Your task to perform on an android device: What's on my calendar today? Image 0: 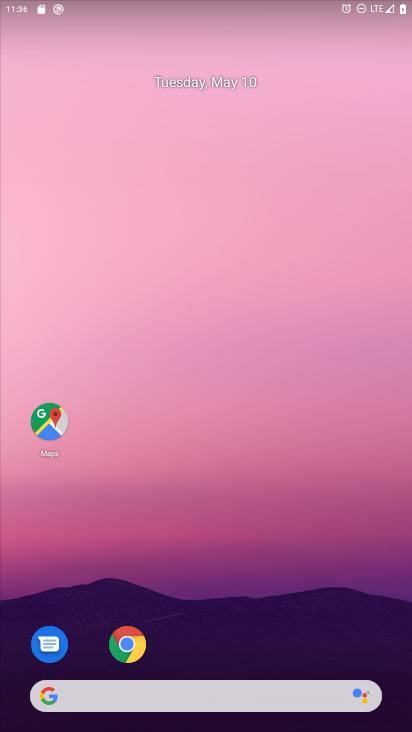
Step 0: drag from (187, 640) to (233, 306)
Your task to perform on an android device: What's on my calendar today? Image 1: 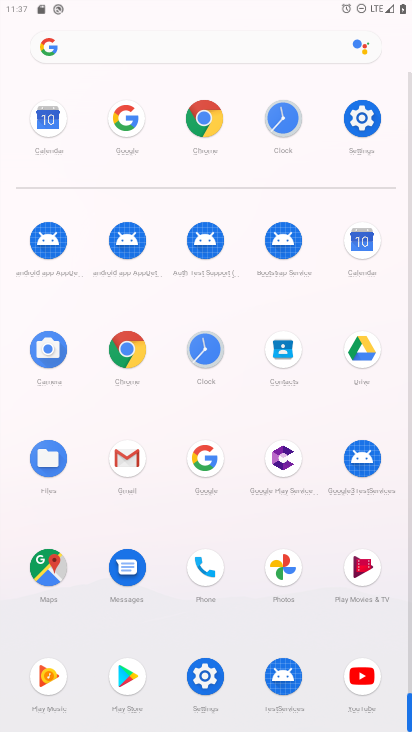
Step 1: click (356, 250)
Your task to perform on an android device: What's on my calendar today? Image 2: 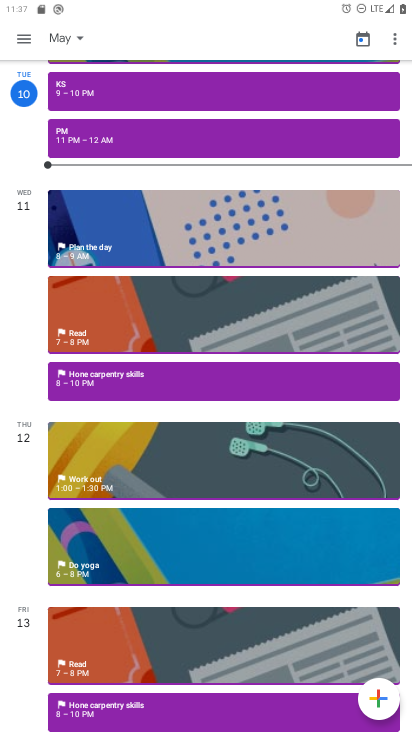
Step 2: task complete